Your task to perform on an android device: add a label to a message in the gmail app Image 0: 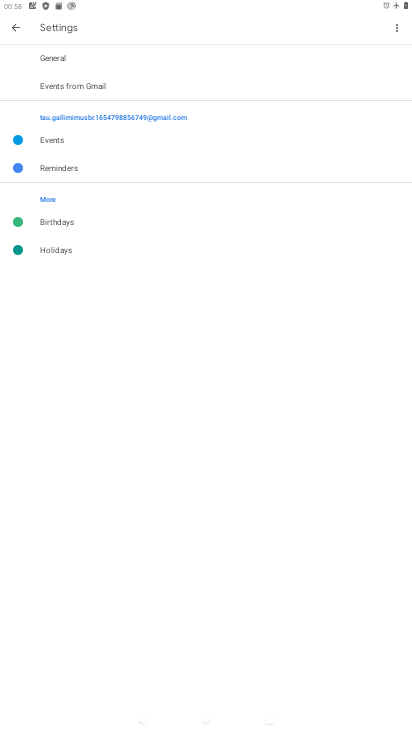
Step 0: press home button
Your task to perform on an android device: add a label to a message in the gmail app Image 1: 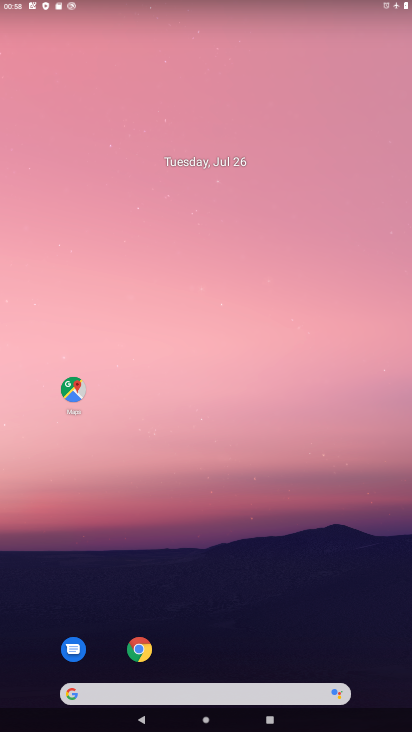
Step 1: drag from (185, 638) to (185, 167)
Your task to perform on an android device: add a label to a message in the gmail app Image 2: 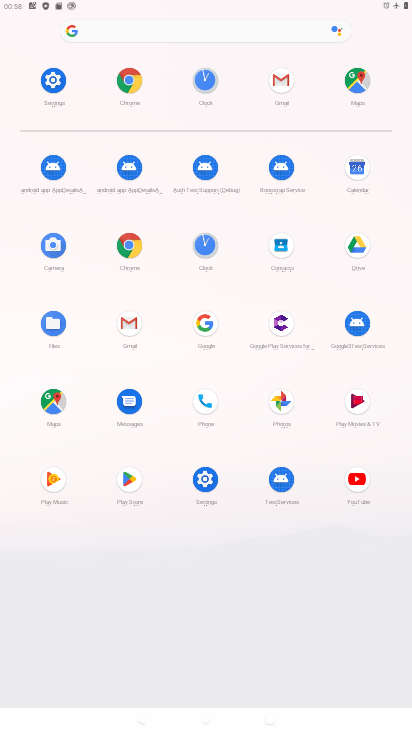
Step 2: click (125, 316)
Your task to perform on an android device: add a label to a message in the gmail app Image 3: 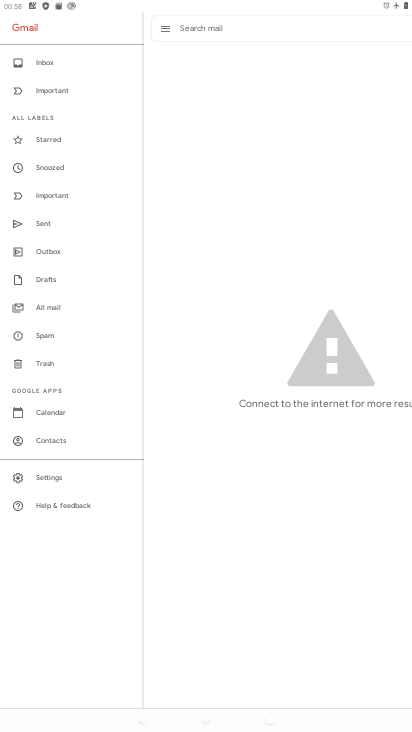
Step 3: click (42, 59)
Your task to perform on an android device: add a label to a message in the gmail app Image 4: 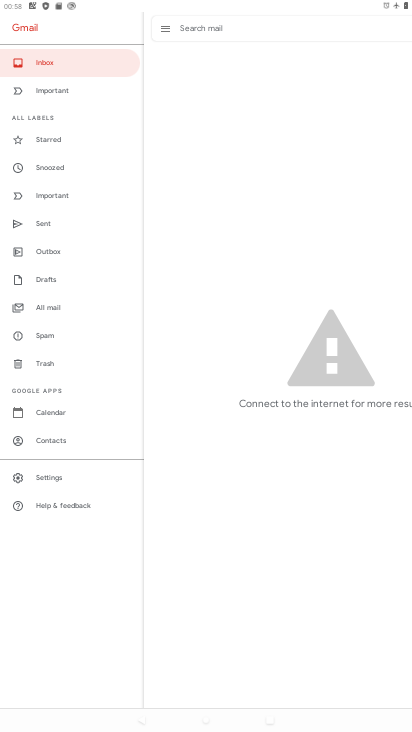
Step 4: task complete